Your task to perform on an android device: change the clock style Image 0: 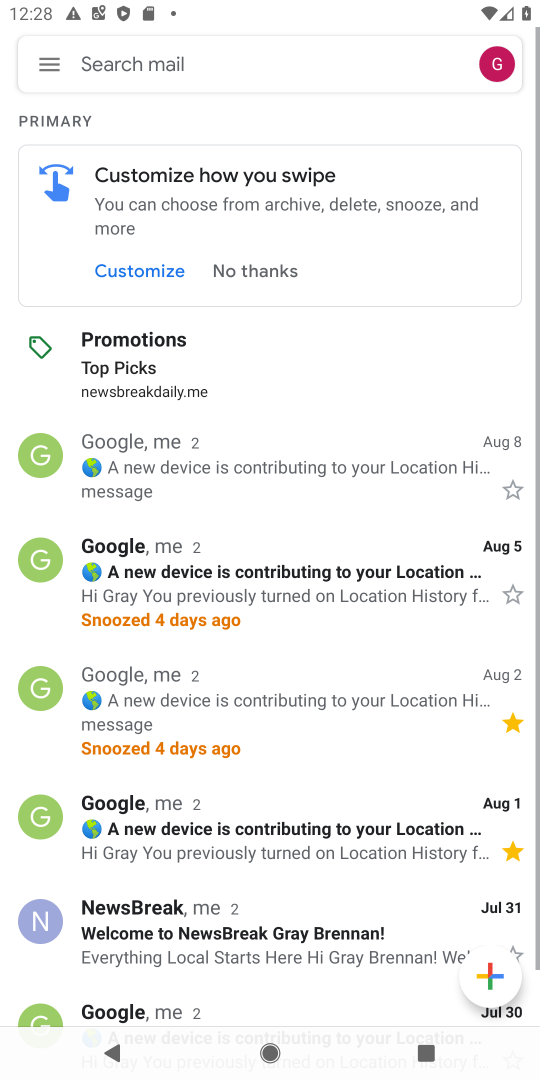
Step 0: press back button
Your task to perform on an android device: change the clock style Image 1: 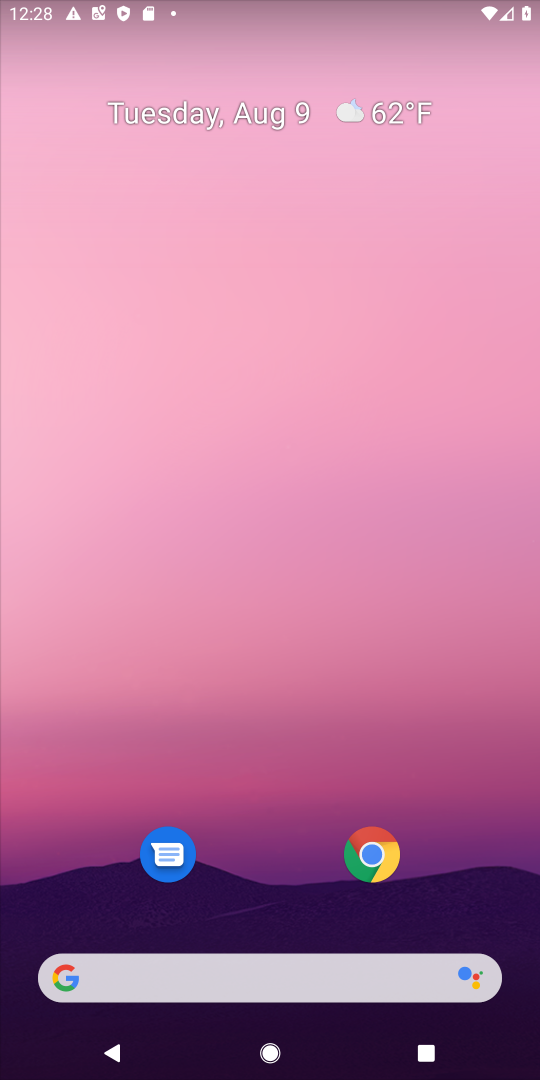
Step 1: drag from (238, 808) to (350, 7)
Your task to perform on an android device: change the clock style Image 2: 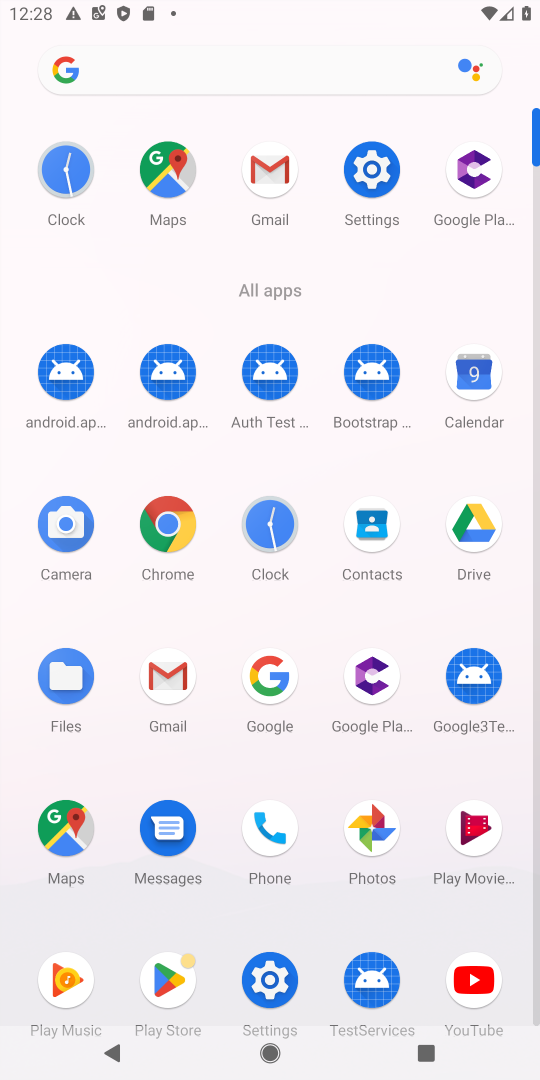
Step 2: click (269, 528)
Your task to perform on an android device: change the clock style Image 3: 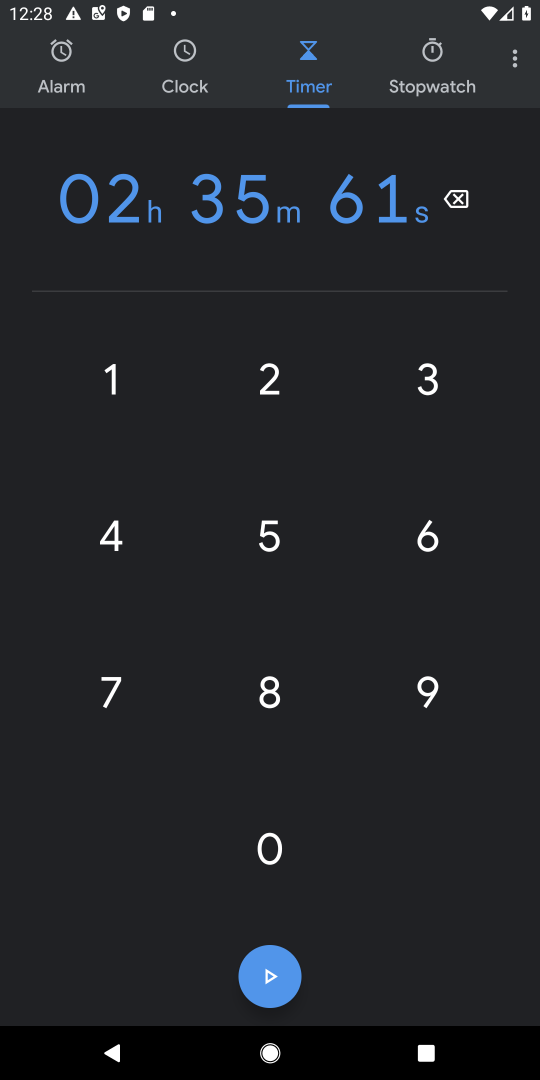
Step 3: click (513, 53)
Your task to perform on an android device: change the clock style Image 4: 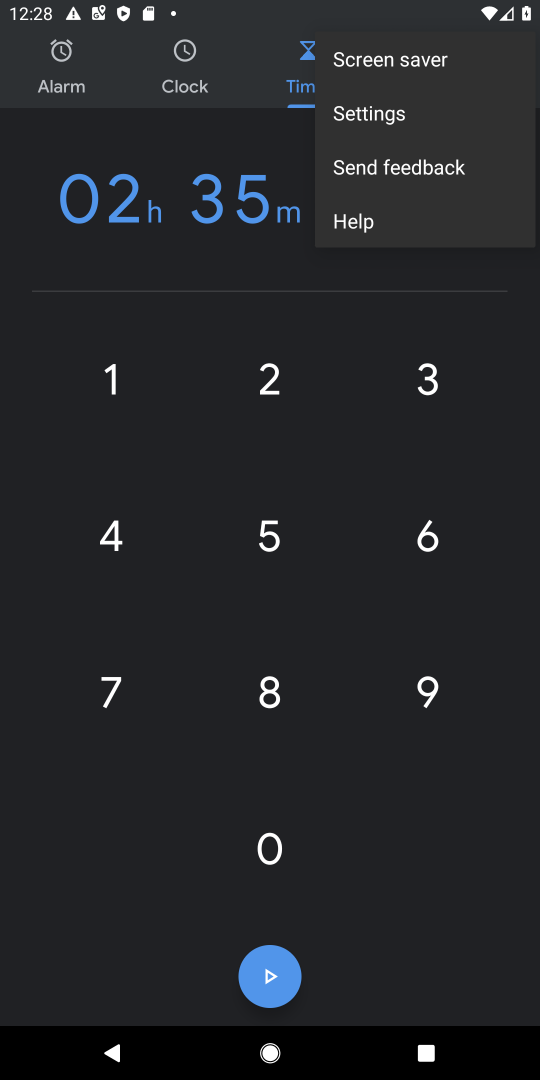
Step 4: click (368, 113)
Your task to perform on an android device: change the clock style Image 5: 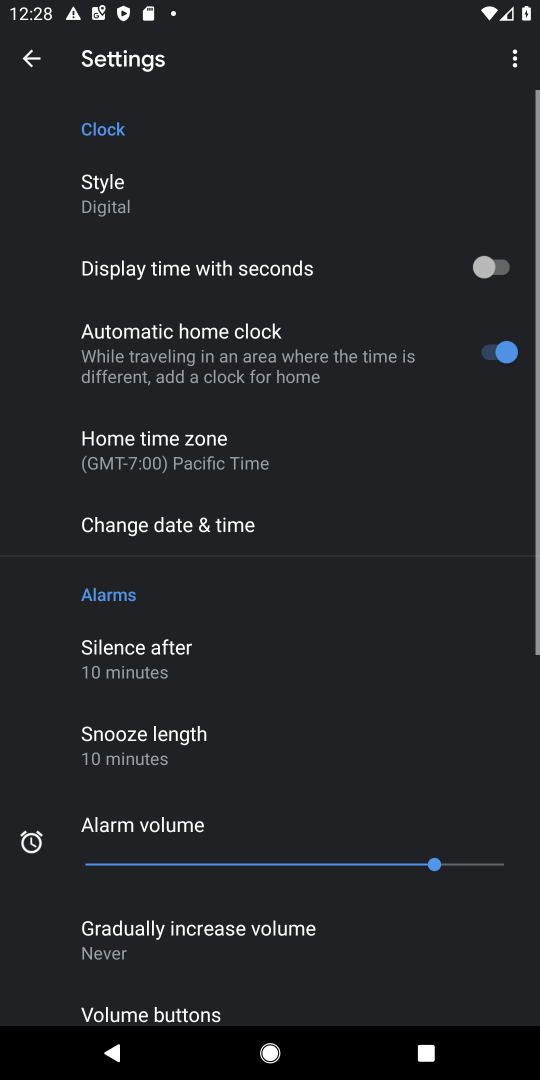
Step 5: click (90, 201)
Your task to perform on an android device: change the clock style Image 6: 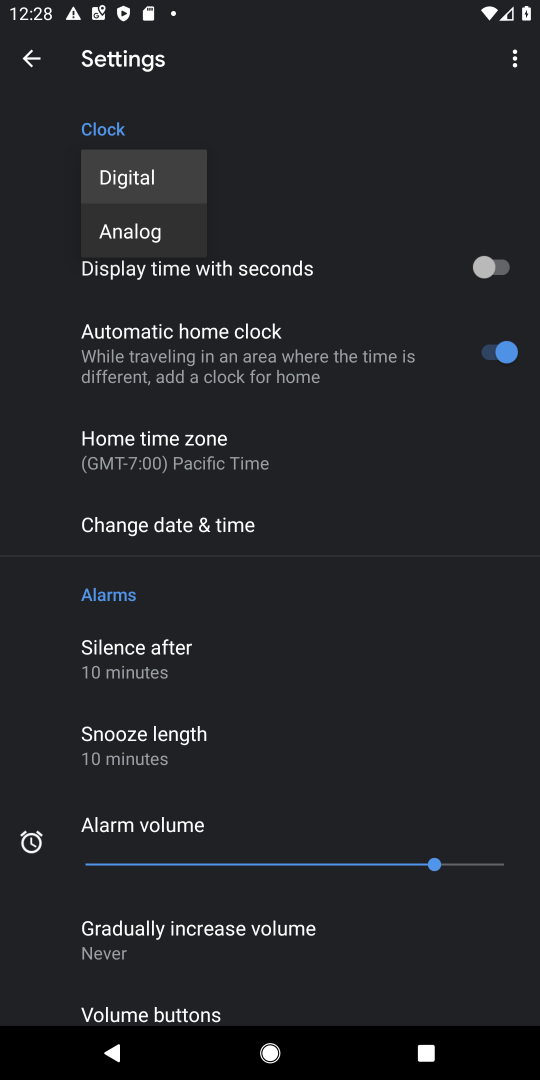
Step 6: click (160, 237)
Your task to perform on an android device: change the clock style Image 7: 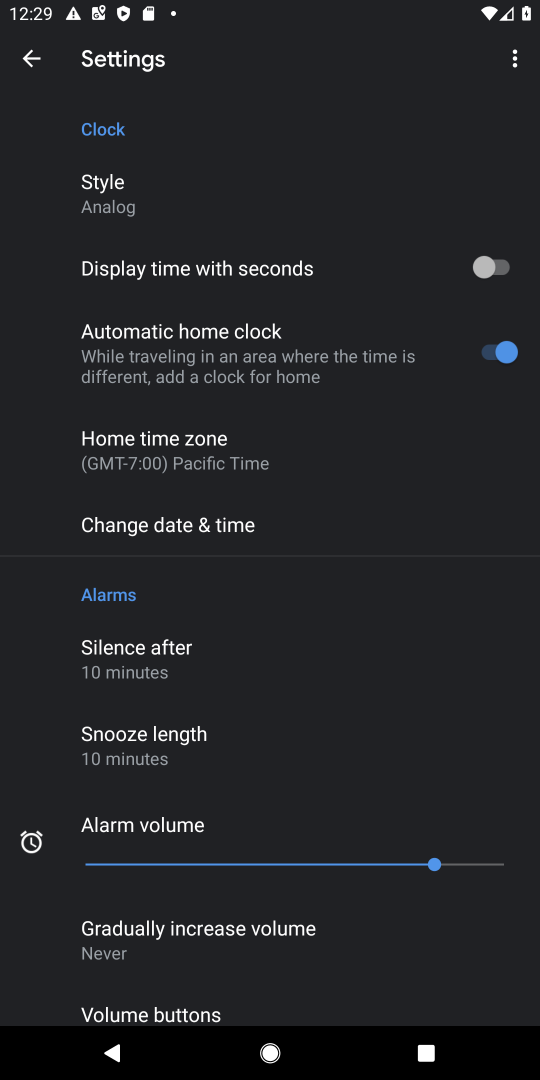
Step 7: task complete